Your task to perform on an android device: Open internet settings Image 0: 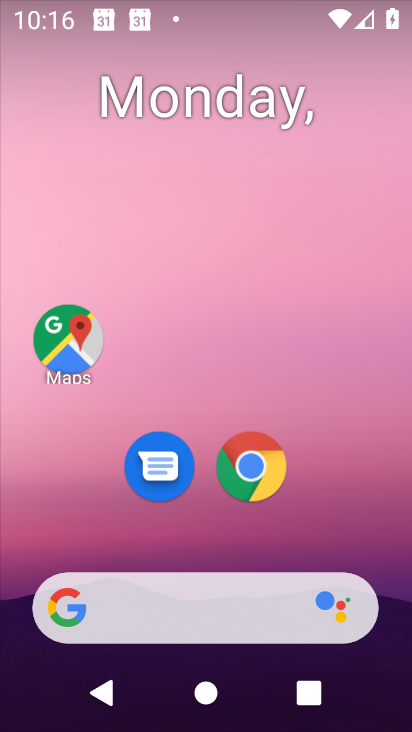
Step 0: click (213, 166)
Your task to perform on an android device: Open internet settings Image 1: 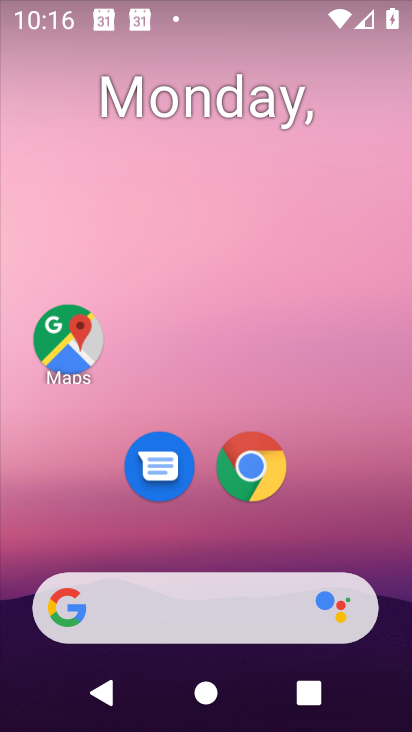
Step 1: click (204, 124)
Your task to perform on an android device: Open internet settings Image 2: 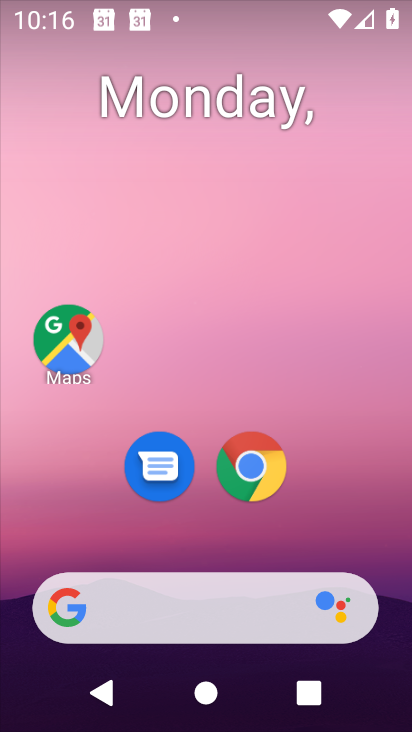
Step 2: click (251, 195)
Your task to perform on an android device: Open internet settings Image 3: 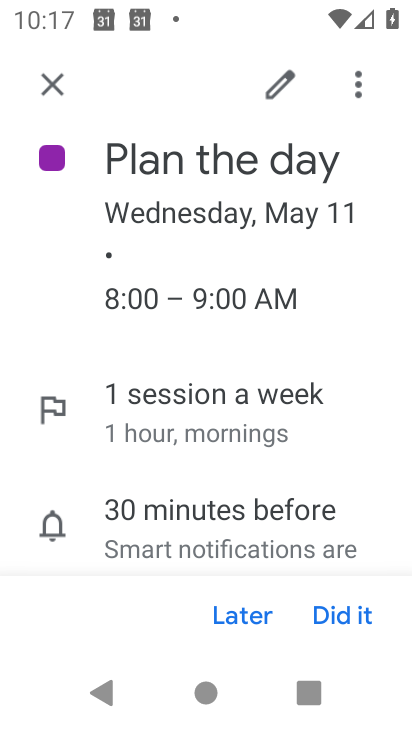
Step 3: click (39, 72)
Your task to perform on an android device: Open internet settings Image 4: 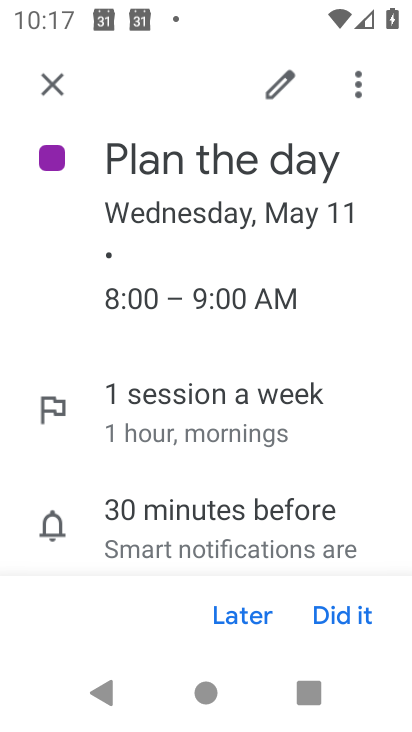
Step 4: click (39, 72)
Your task to perform on an android device: Open internet settings Image 5: 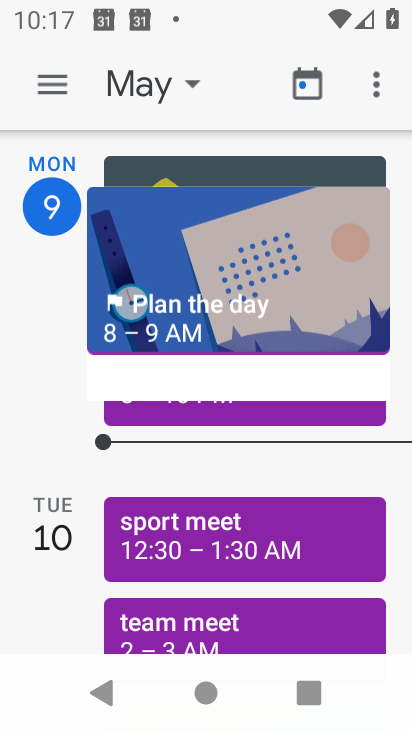
Step 5: click (44, 78)
Your task to perform on an android device: Open internet settings Image 6: 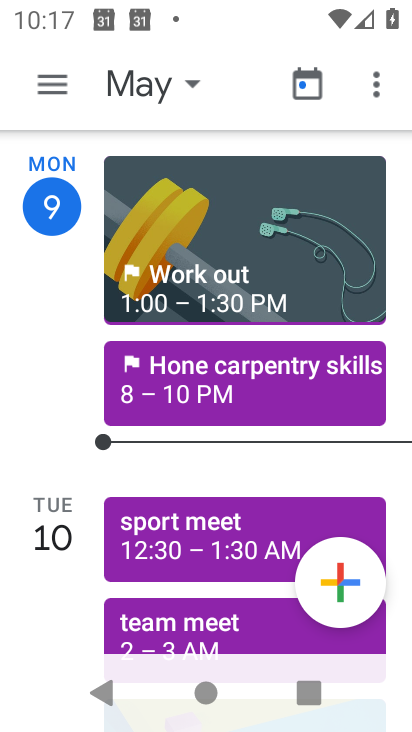
Step 6: click (44, 78)
Your task to perform on an android device: Open internet settings Image 7: 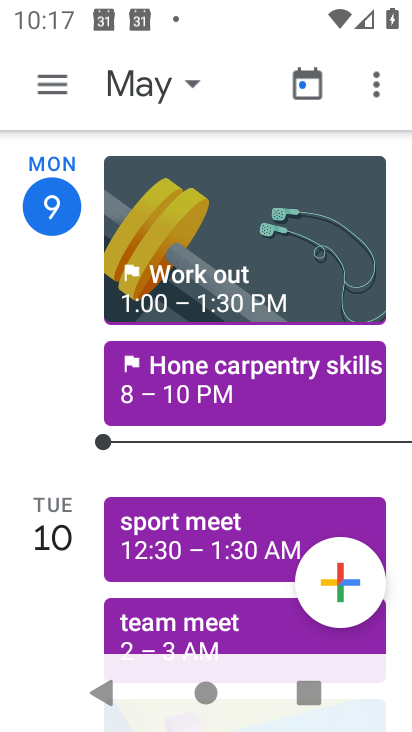
Step 7: click (44, 78)
Your task to perform on an android device: Open internet settings Image 8: 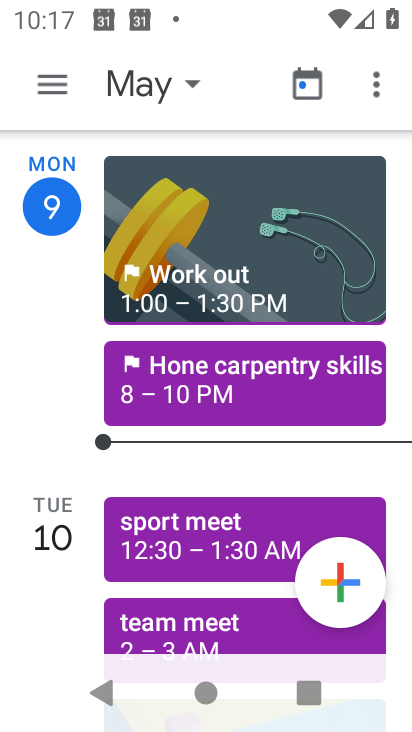
Step 8: press back button
Your task to perform on an android device: Open internet settings Image 9: 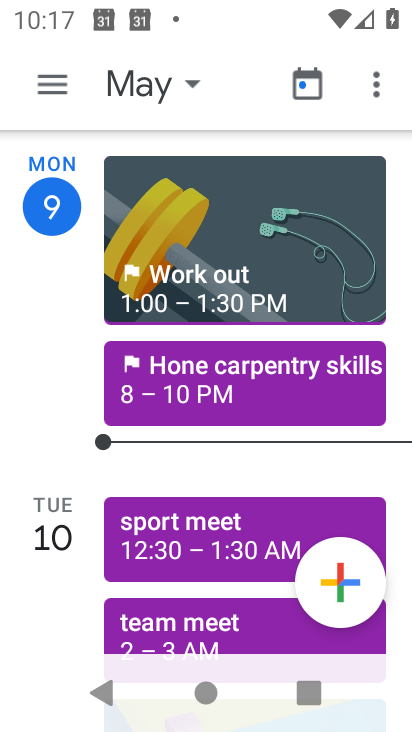
Step 9: press back button
Your task to perform on an android device: Open internet settings Image 10: 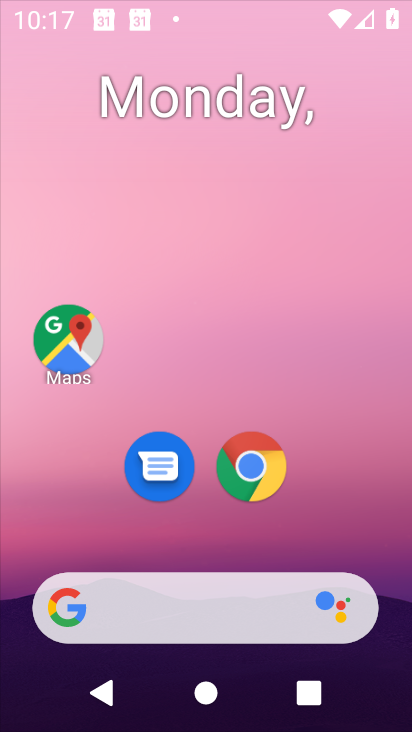
Step 10: press back button
Your task to perform on an android device: Open internet settings Image 11: 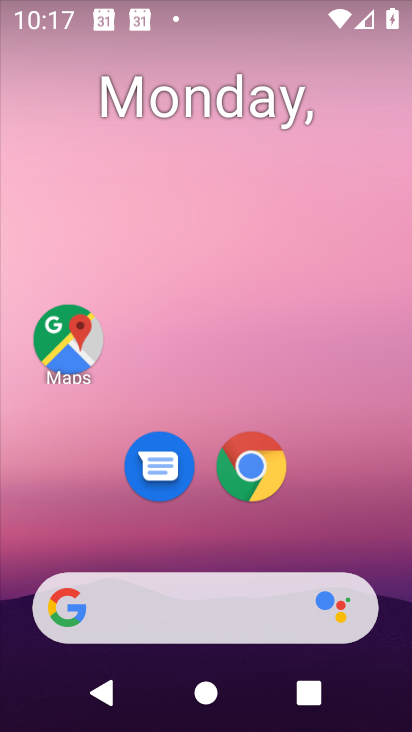
Step 11: drag from (350, 592) to (179, 159)
Your task to perform on an android device: Open internet settings Image 12: 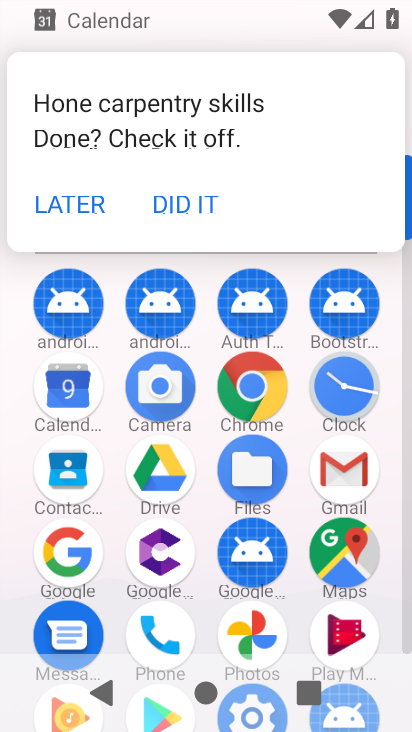
Step 12: click (181, 200)
Your task to perform on an android device: Open internet settings Image 13: 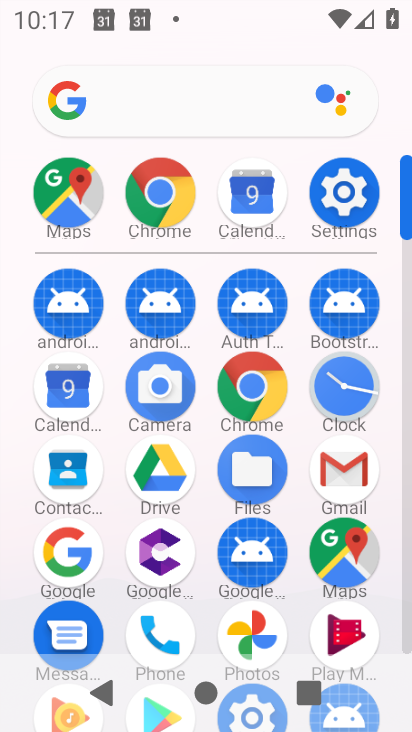
Step 13: click (337, 201)
Your task to perform on an android device: Open internet settings Image 14: 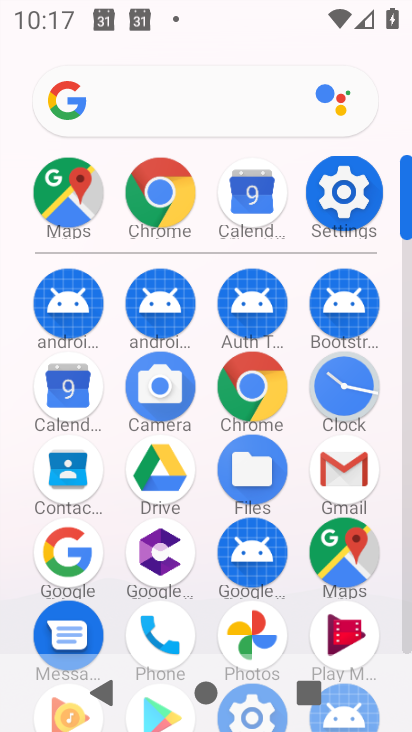
Step 14: click (337, 201)
Your task to perform on an android device: Open internet settings Image 15: 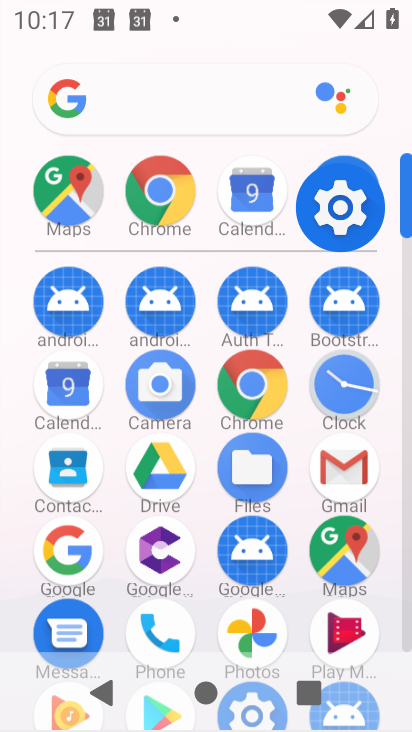
Step 15: click (337, 201)
Your task to perform on an android device: Open internet settings Image 16: 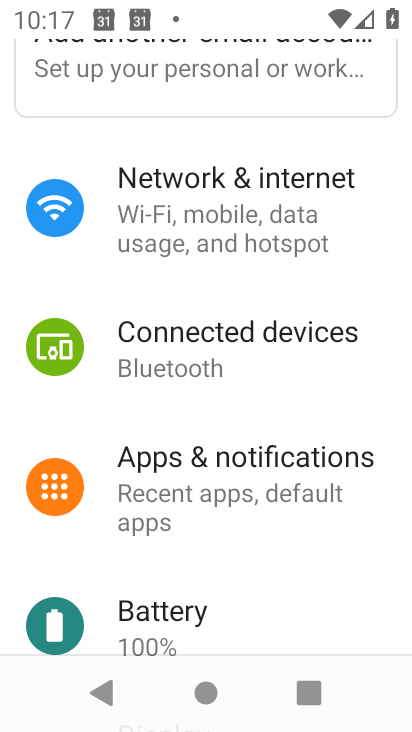
Step 16: click (206, 222)
Your task to perform on an android device: Open internet settings Image 17: 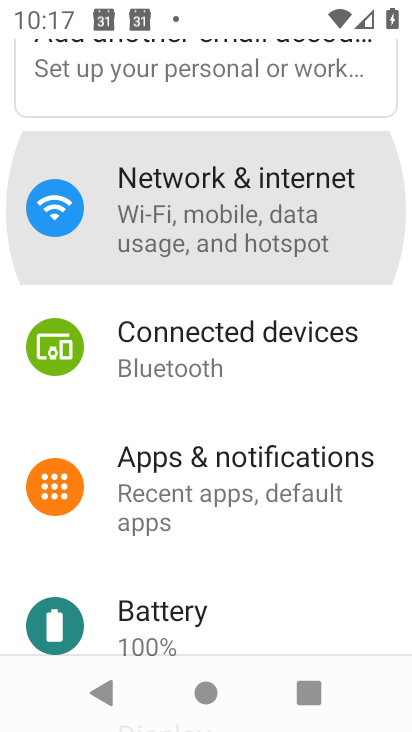
Step 17: click (206, 222)
Your task to perform on an android device: Open internet settings Image 18: 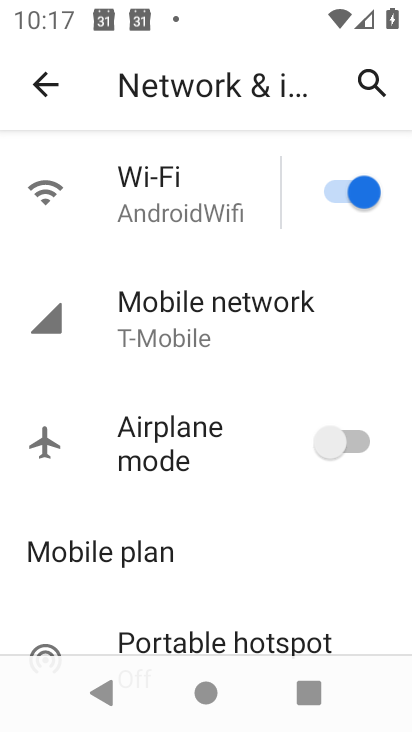
Step 18: task complete